Your task to perform on an android device: Open notification settings Image 0: 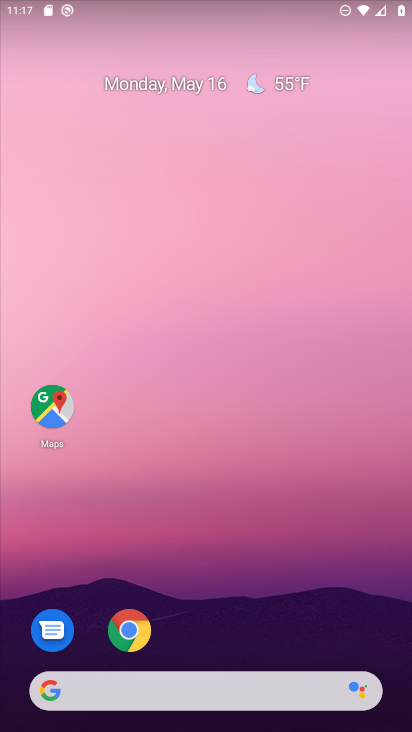
Step 0: drag from (211, 635) to (253, 174)
Your task to perform on an android device: Open notification settings Image 1: 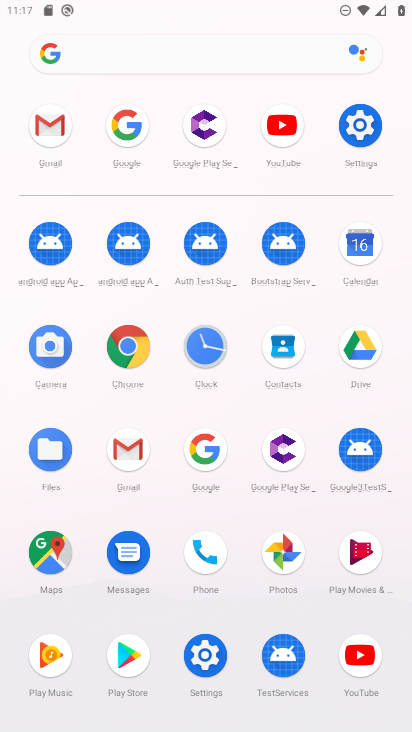
Step 1: click (345, 127)
Your task to perform on an android device: Open notification settings Image 2: 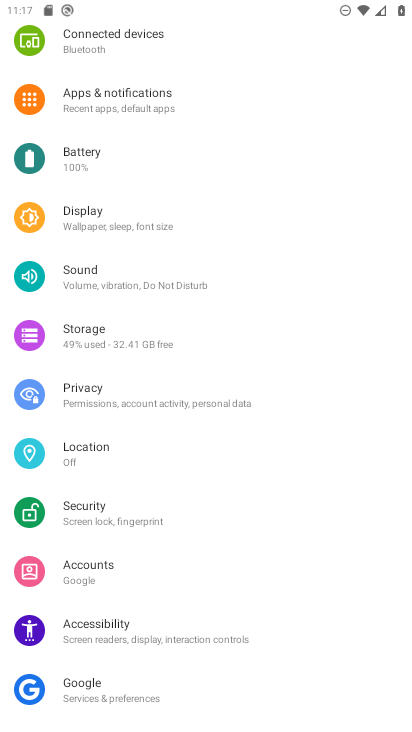
Step 2: click (181, 104)
Your task to perform on an android device: Open notification settings Image 3: 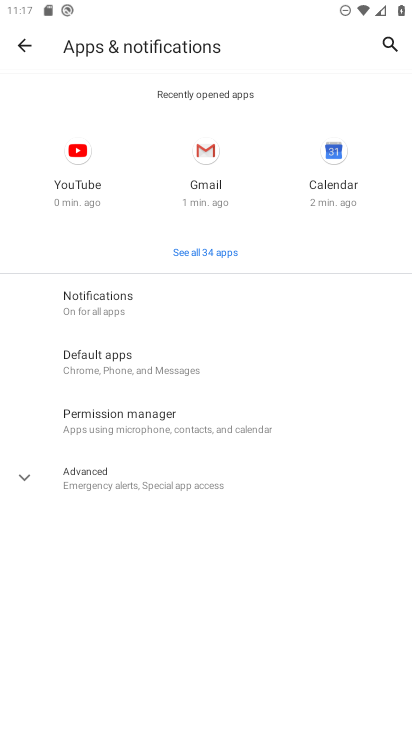
Step 3: click (140, 300)
Your task to perform on an android device: Open notification settings Image 4: 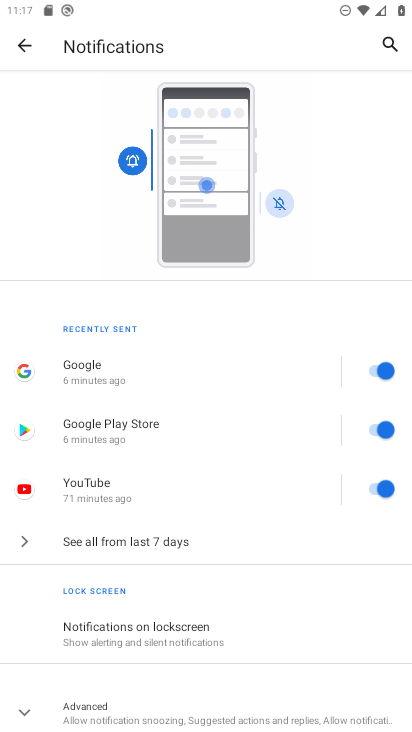
Step 4: task complete